Your task to perform on an android device: Go to Yahoo.com Image 0: 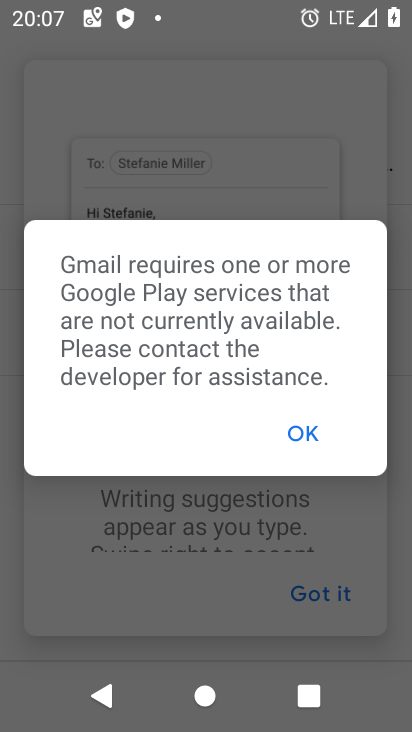
Step 0: press home button
Your task to perform on an android device: Go to Yahoo.com Image 1: 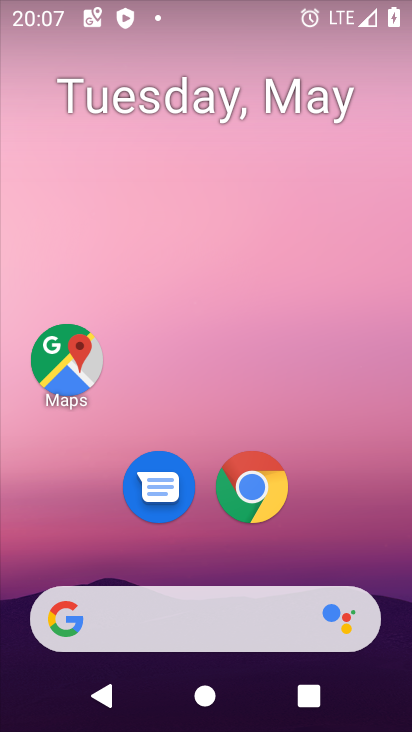
Step 1: click (259, 493)
Your task to perform on an android device: Go to Yahoo.com Image 2: 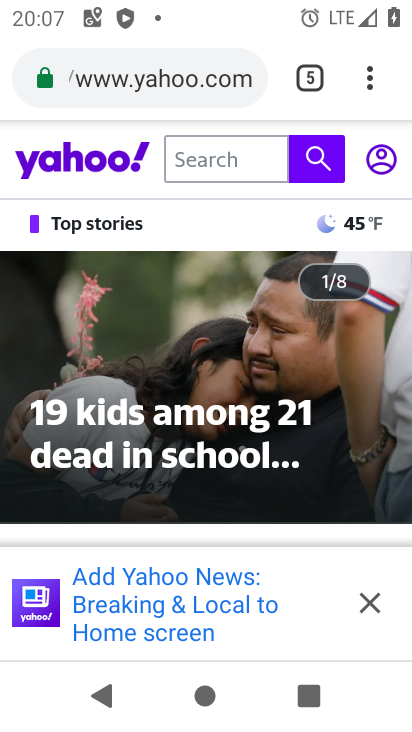
Step 2: task complete